Your task to perform on an android device: manage bookmarks in the chrome app Image 0: 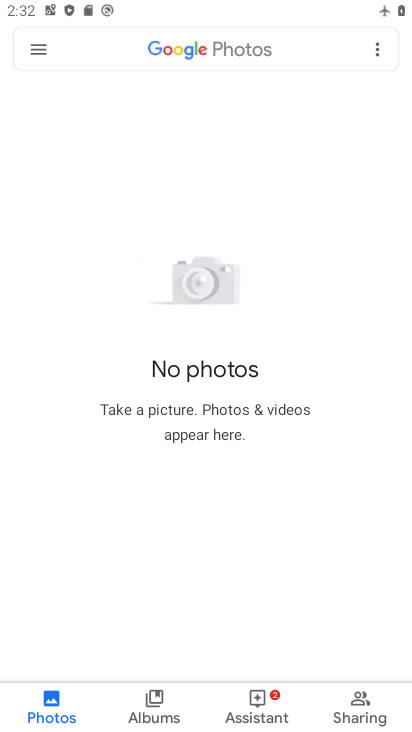
Step 0: press home button
Your task to perform on an android device: manage bookmarks in the chrome app Image 1: 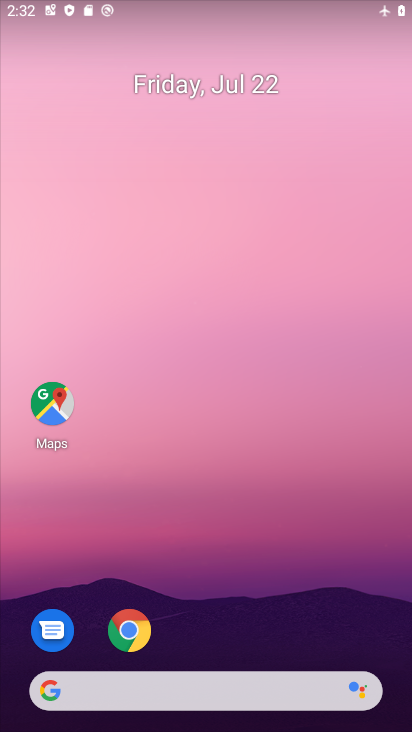
Step 1: drag from (229, 662) to (166, 98)
Your task to perform on an android device: manage bookmarks in the chrome app Image 2: 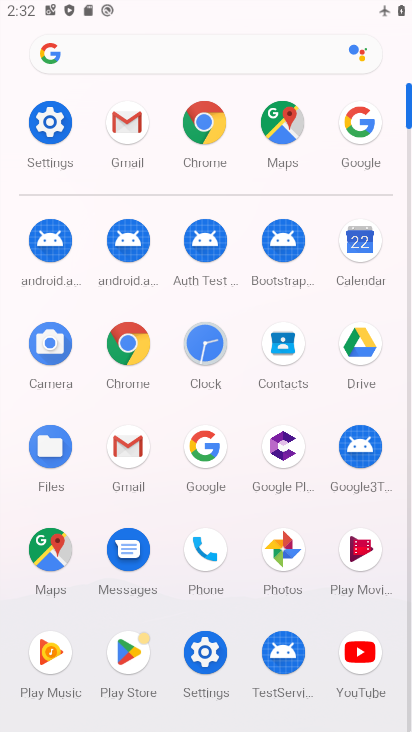
Step 2: click (140, 351)
Your task to perform on an android device: manage bookmarks in the chrome app Image 3: 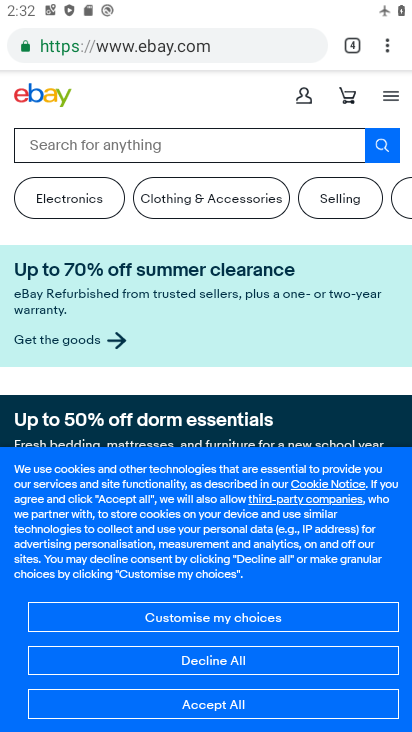
Step 3: drag from (385, 50) to (236, 504)
Your task to perform on an android device: manage bookmarks in the chrome app Image 4: 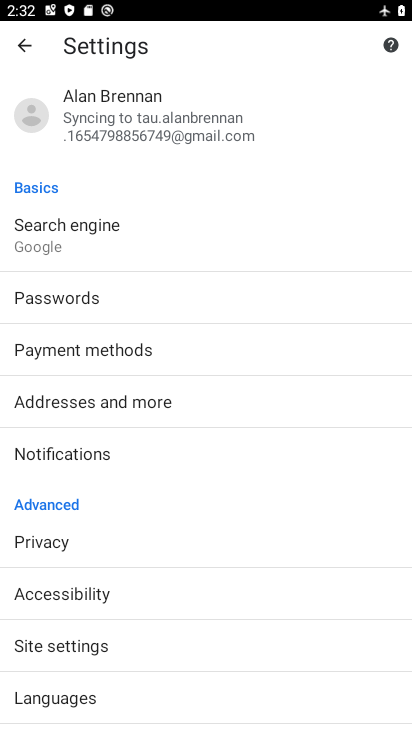
Step 4: drag from (126, 566) to (98, 217)
Your task to perform on an android device: manage bookmarks in the chrome app Image 5: 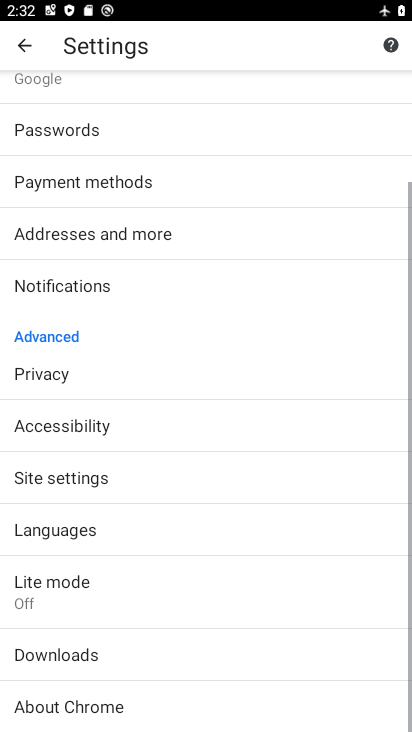
Step 5: drag from (95, 179) to (127, 552)
Your task to perform on an android device: manage bookmarks in the chrome app Image 6: 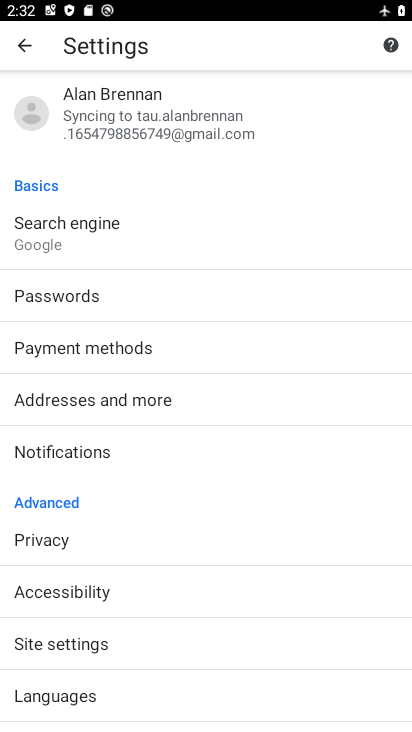
Step 6: click (20, 37)
Your task to perform on an android device: manage bookmarks in the chrome app Image 7: 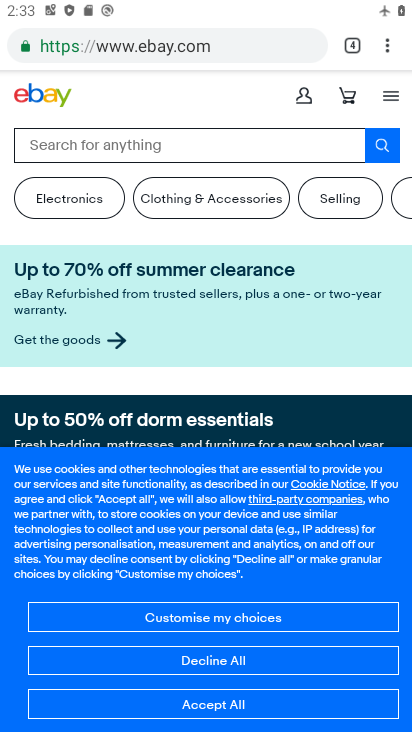
Step 7: task complete